Your task to perform on an android device: turn off notifications settings in the gmail app Image 0: 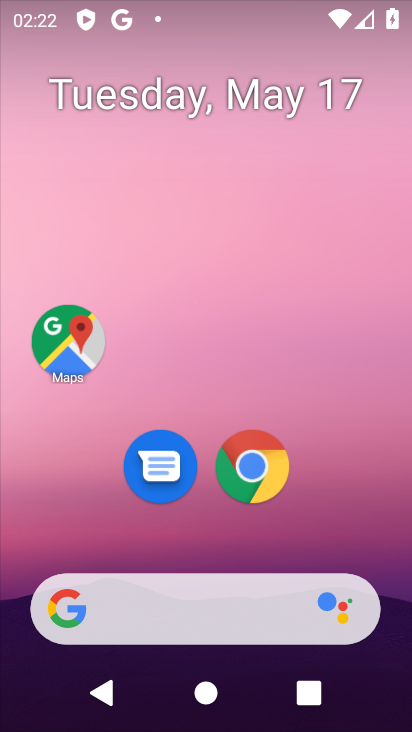
Step 0: drag from (350, 511) to (337, 33)
Your task to perform on an android device: turn off notifications settings in the gmail app Image 1: 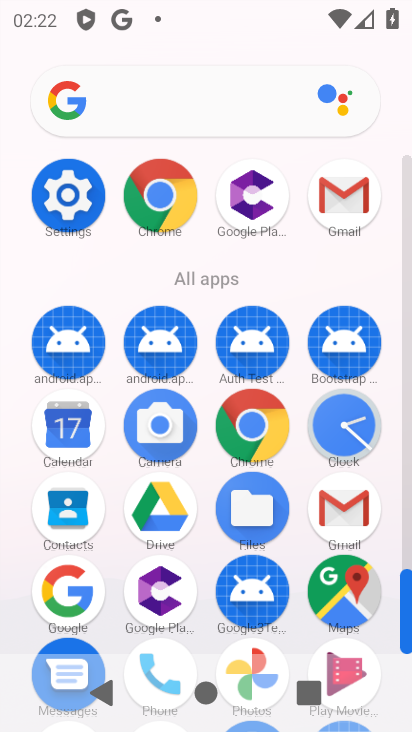
Step 1: click (351, 223)
Your task to perform on an android device: turn off notifications settings in the gmail app Image 2: 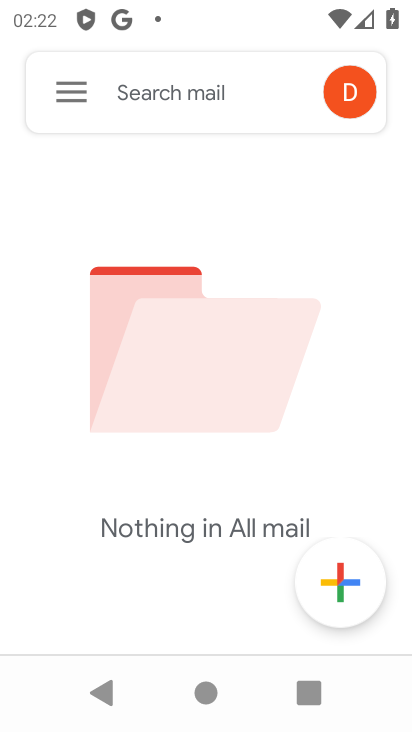
Step 2: click (76, 97)
Your task to perform on an android device: turn off notifications settings in the gmail app Image 3: 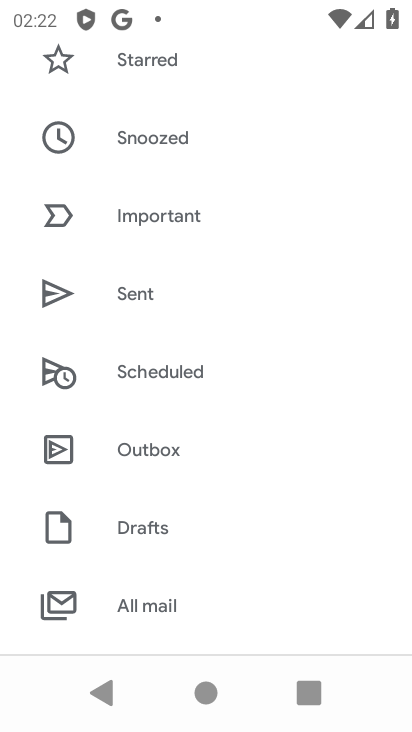
Step 3: drag from (232, 630) to (241, 144)
Your task to perform on an android device: turn off notifications settings in the gmail app Image 4: 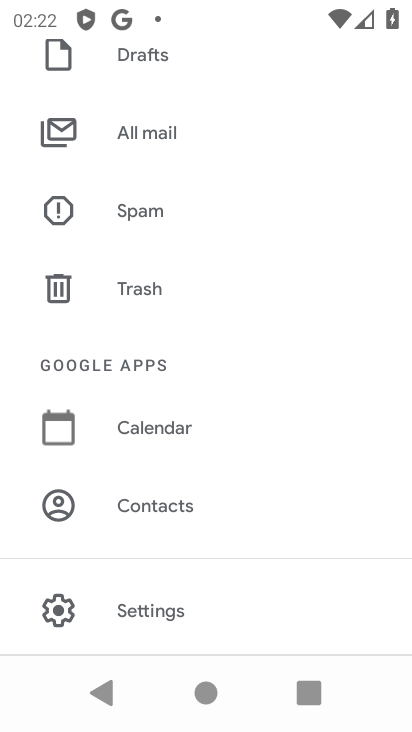
Step 4: click (128, 604)
Your task to perform on an android device: turn off notifications settings in the gmail app Image 5: 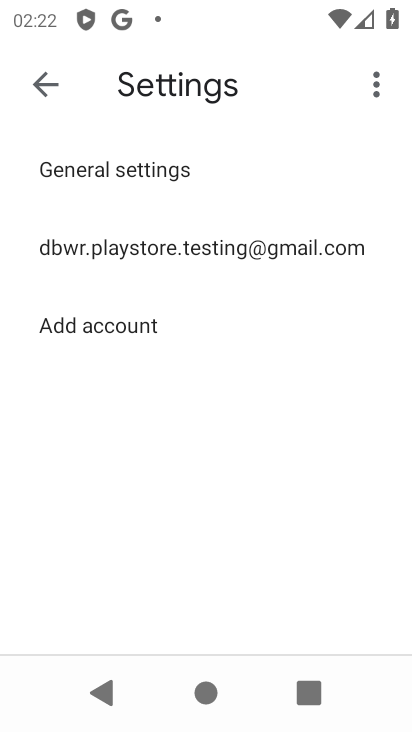
Step 5: click (220, 229)
Your task to perform on an android device: turn off notifications settings in the gmail app Image 6: 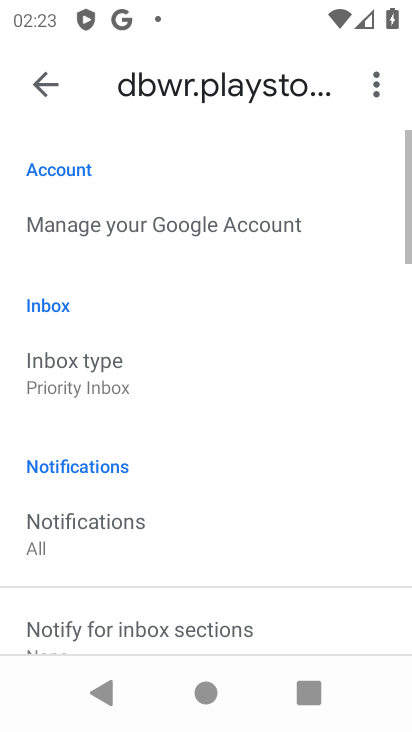
Step 6: drag from (193, 517) to (271, 181)
Your task to perform on an android device: turn off notifications settings in the gmail app Image 7: 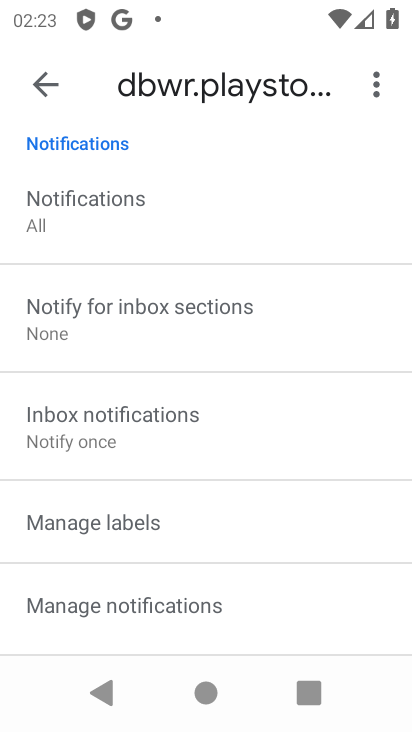
Step 7: click (128, 597)
Your task to perform on an android device: turn off notifications settings in the gmail app Image 8: 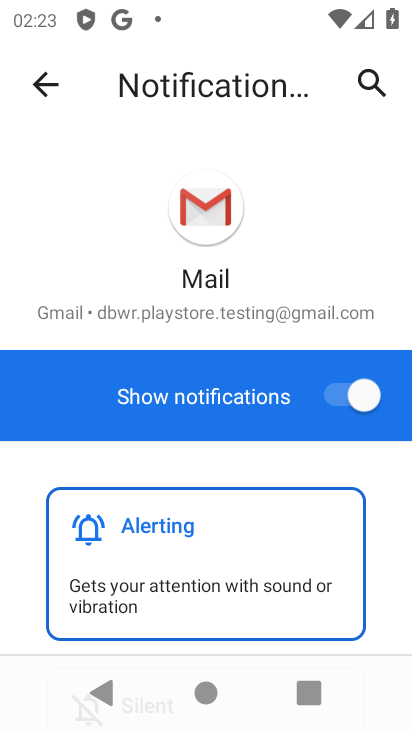
Step 8: click (364, 377)
Your task to perform on an android device: turn off notifications settings in the gmail app Image 9: 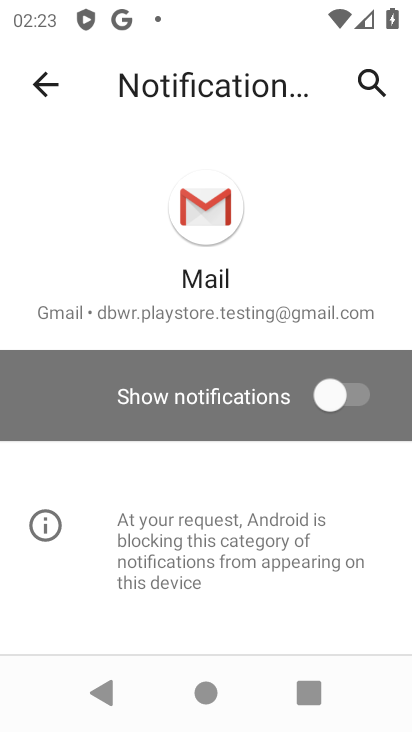
Step 9: task complete